Your task to perform on an android device: Open Google Chrome and open the bookmarks view Image 0: 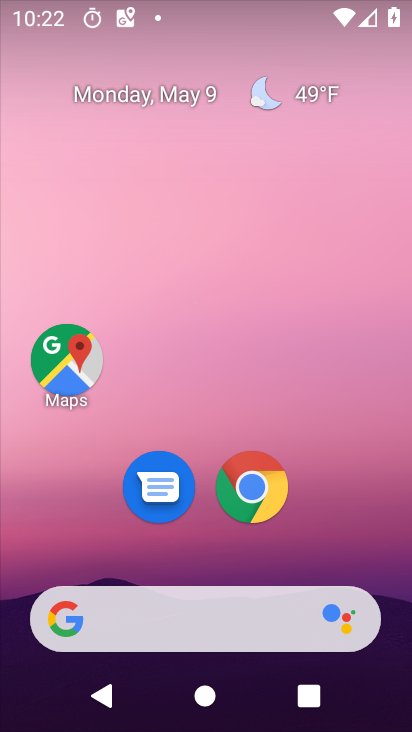
Step 0: click (256, 484)
Your task to perform on an android device: Open Google Chrome and open the bookmarks view Image 1: 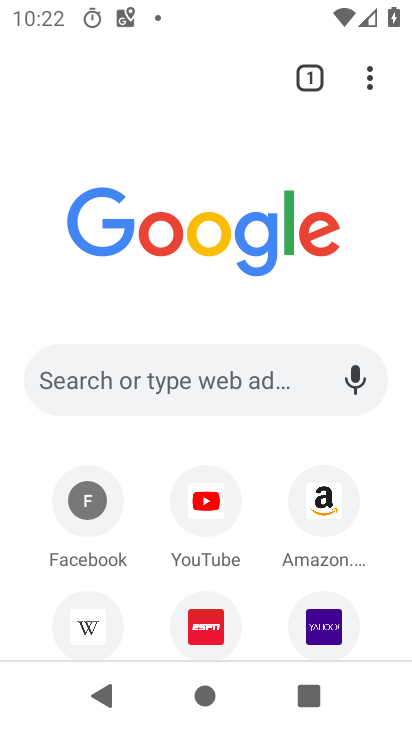
Step 1: task complete